Your task to perform on an android device: Is it going to rain today? Image 0: 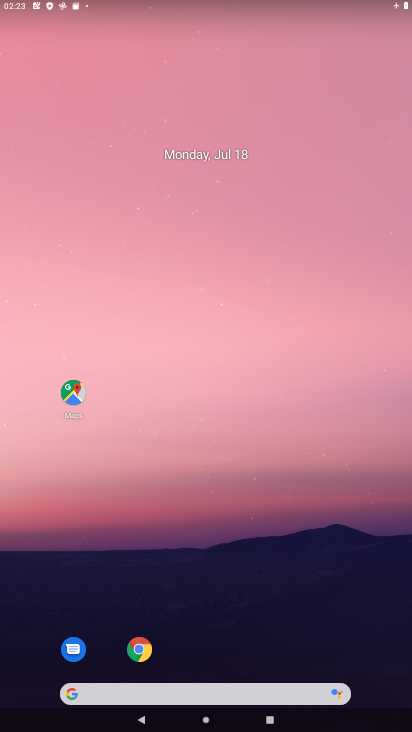
Step 0: click (256, 693)
Your task to perform on an android device: Is it going to rain today? Image 1: 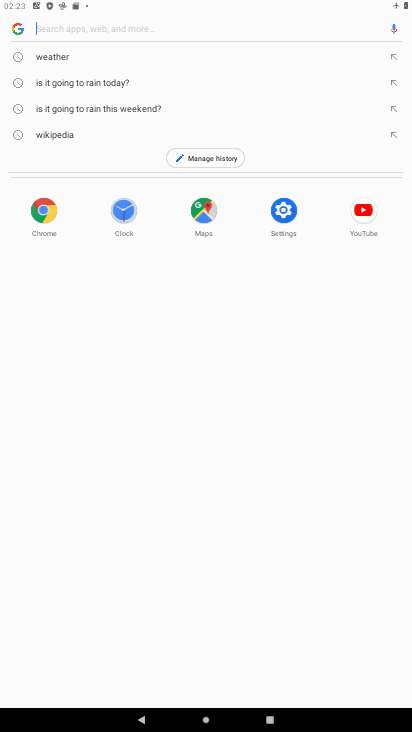
Step 1: click (117, 85)
Your task to perform on an android device: Is it going to rain today? Image 2: 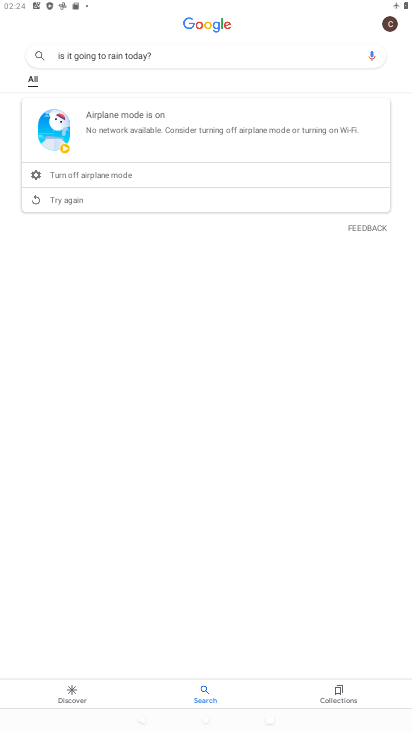
Step 2: task complete